Your task to perform on an android device: turn off translation in the chrome app Image 0: 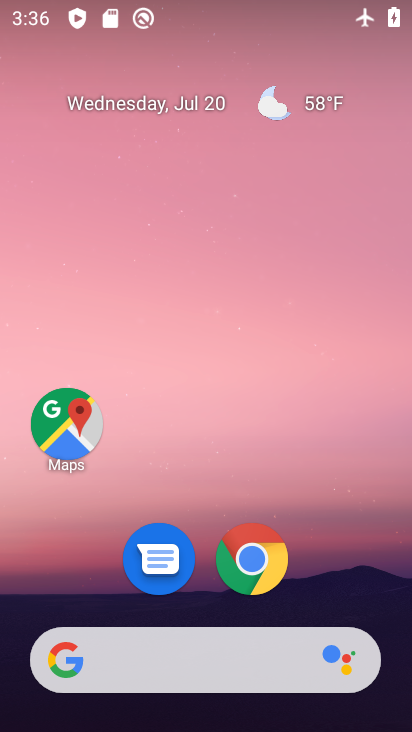
Step 0: click (257, 563)
Your task to perform on an android device: turn off translation in the chrome app Image 1: 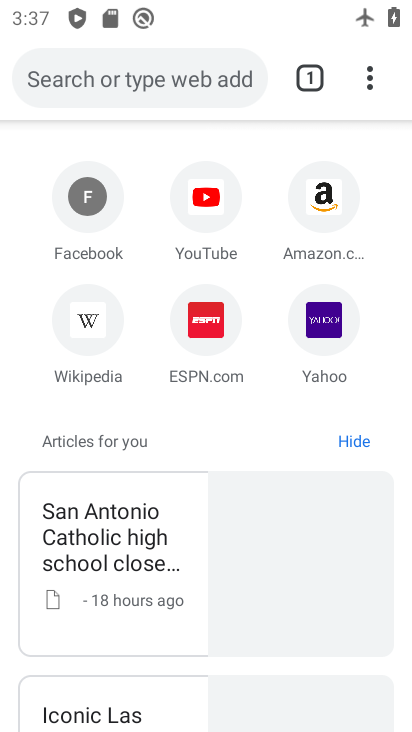
Step 1: drag from (364, 71) to (99, 631)
Your task to perform on an android device: turn off translation in the chrome app Image 2: 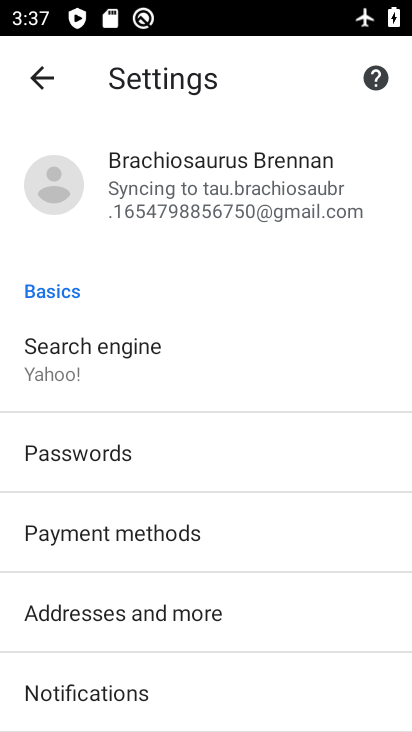
Step 2: drag from (139, 620) to (273, 84)
Your task to perform on an android device: turn off translation in the chrome app Image 3: 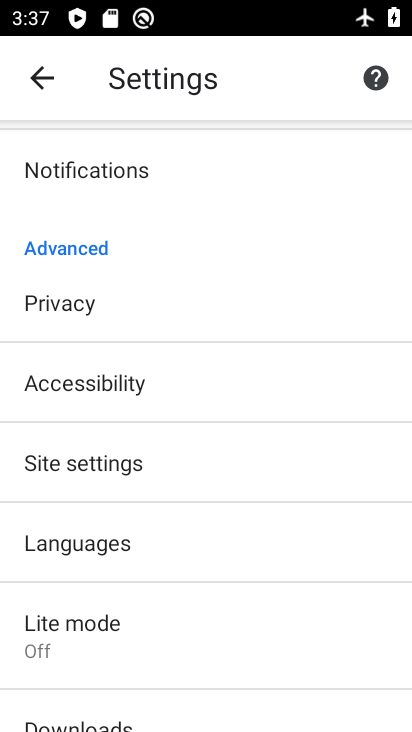
Step 3: click (122, 542)
Your task to perform on an android device: turn off translation in the chrome app Image 4: 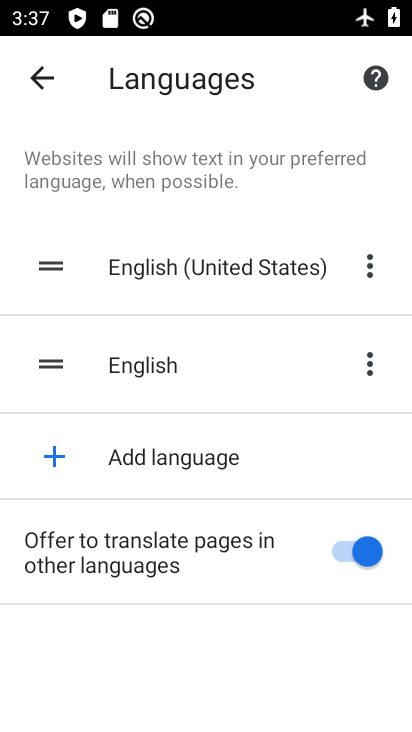
Step 4: click (352, 547)
Your task to perform on an android device: turn off translation in the chrome app Image 5: 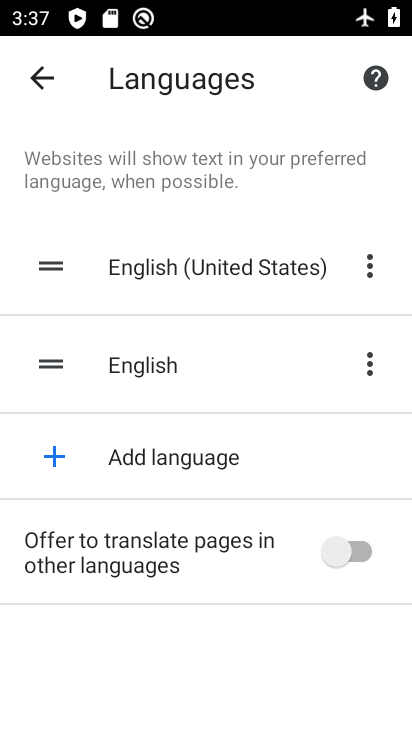
Step 5: task complete